Your task to perform on an android device: Open ESPN.com Image 0: 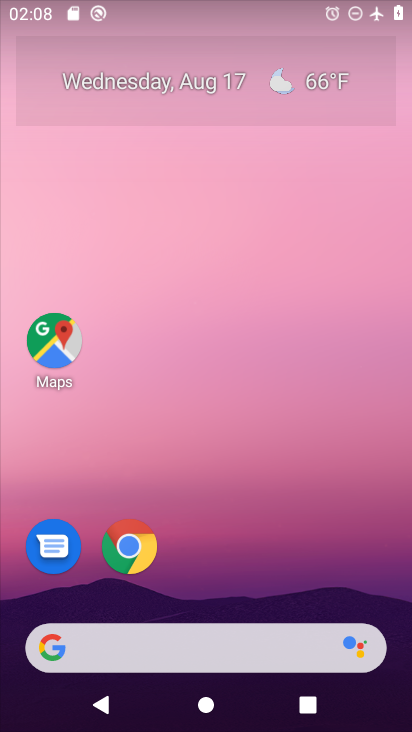
Step 0: drag from (263, 559) to (241, 116)
Your task to perform on an android device: Open ESPN.com Image 1: 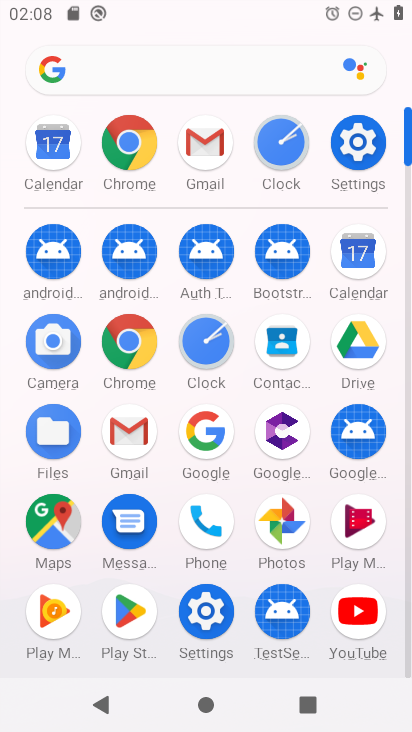
Step 1: click (130, 345)
Your task to perform on an android device: Open ESPN.com Image 2: 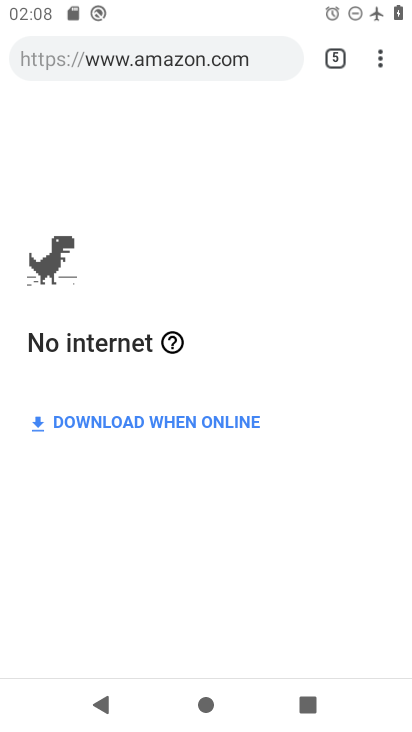
Step 2: click (383, 56)
Your task to perform on an android device: Open ESPN.com Image 3: 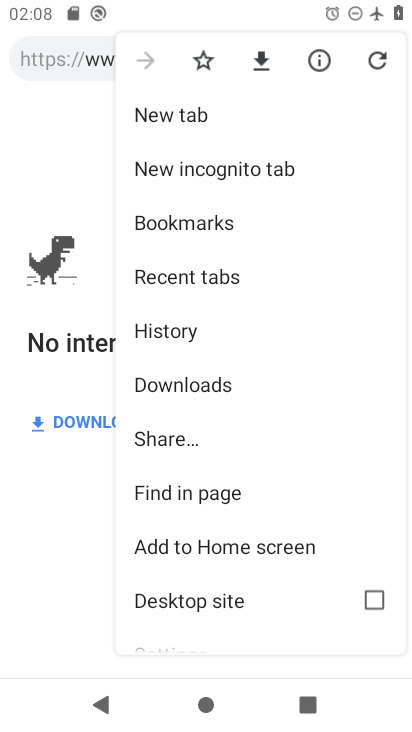
Step 3: click (168, 113)
Your task to perform on an android device: Open ESPN.com Image 4: 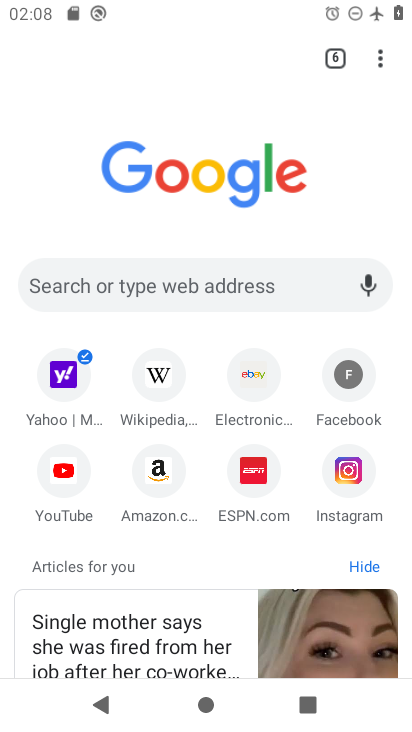
Step 4: click (246, 482)
Your task to perform on an android device: Open ESPN.com Image 5: 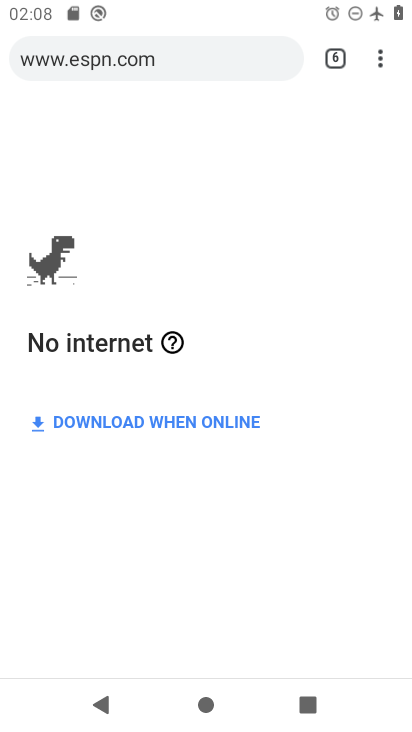
Step 5: task complete